Your task to perform on an android device: turn notification dots off Image 0: 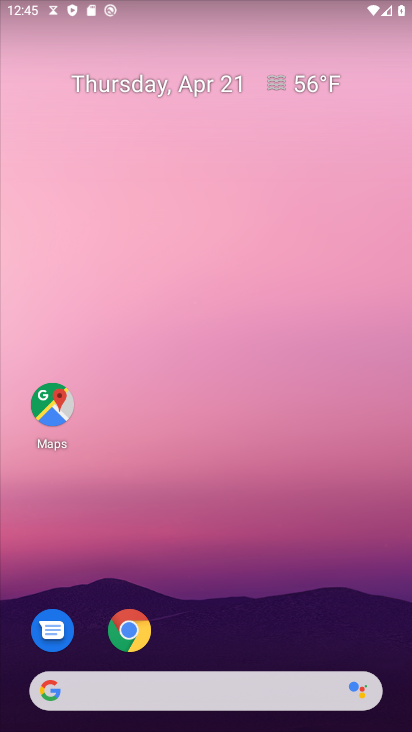
Step 0: drag from (259, 680) to (211, 27)
Your task to perform on an android device: turn notification dots off Image 1: 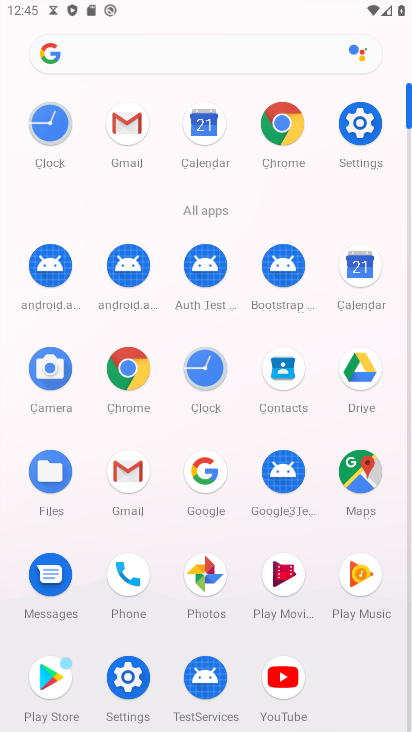
Step 1: click (128, 670)
Your task to perform on an android device: turn notification dots off Image 2: 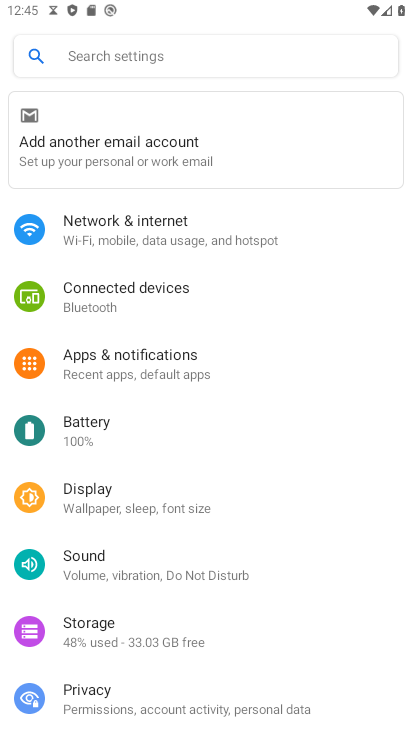
Step 2: click (139, 382)
Your task to perform on an android device: turn notification dots off Image 3: 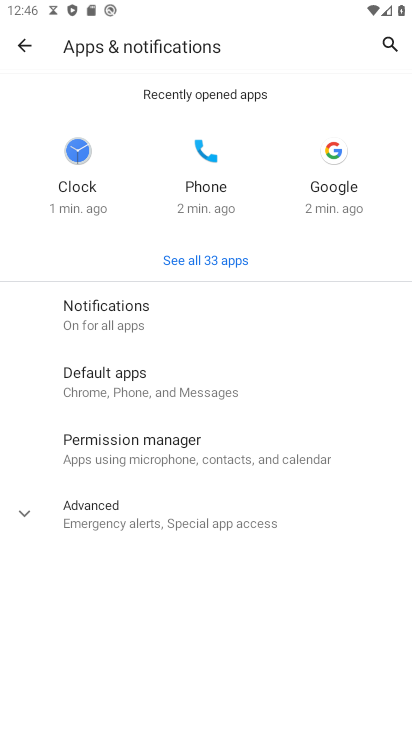
Step 3: click (130, 322)
Your task to perform on an android device: turn notification dots off Image 4: 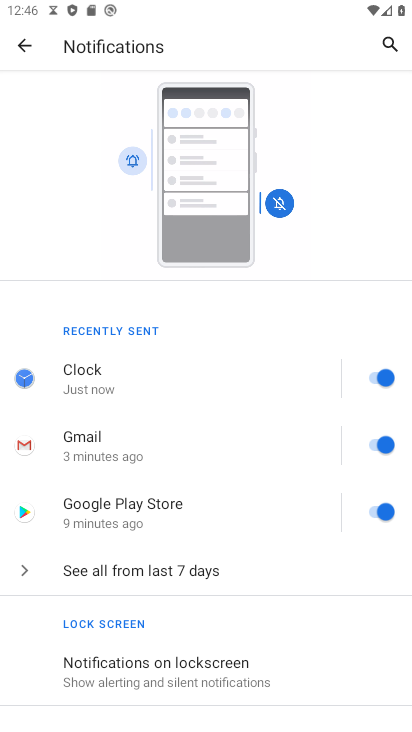
Step 4: drag from (164, 626) to (173, 62)
Your task to perform on an android device: turn notification dots off Image 5: 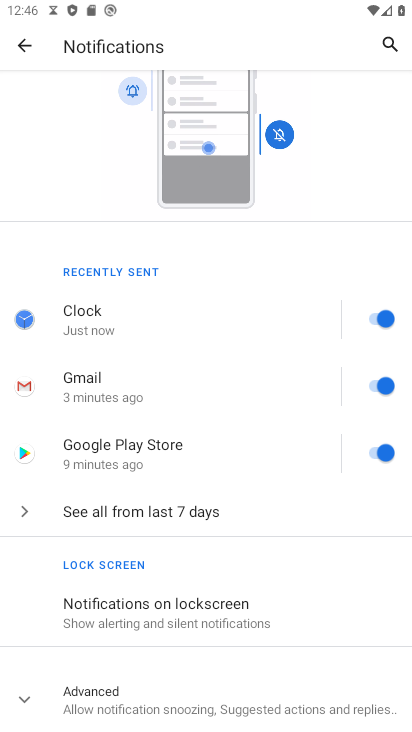
Step 5: click (122, 683)
Your task to perform on an android device: turn notification dots off Image 6: 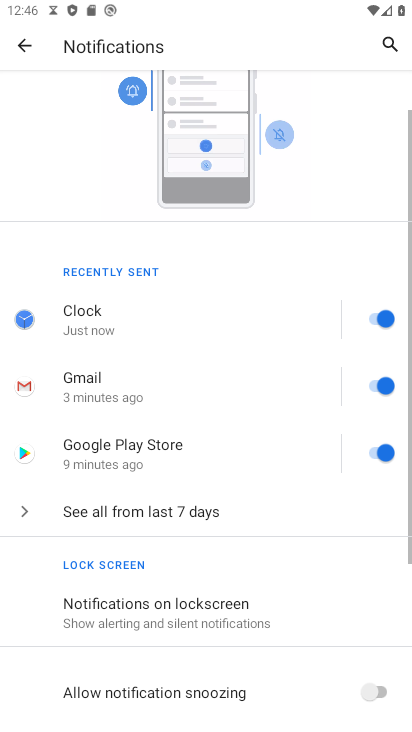
Step 6: drag from (136, 627) to (103, 280)
Your task to perform on an android device: turn notification dots off Image 7: 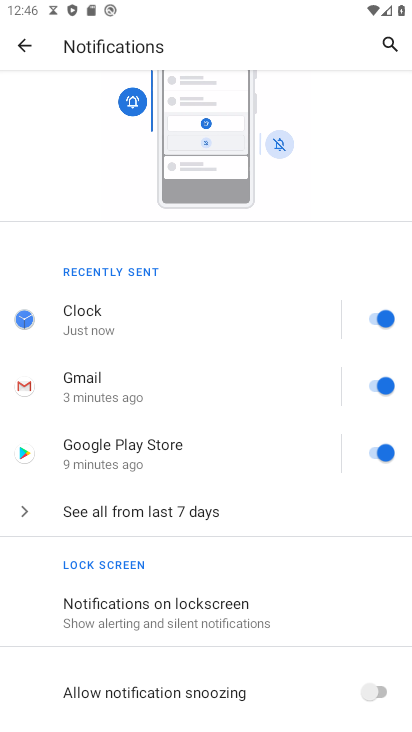
Step 7: drag from (206, 637) to (218, 70)
Your task to perform on an android device: turn notification dots off Image 8: 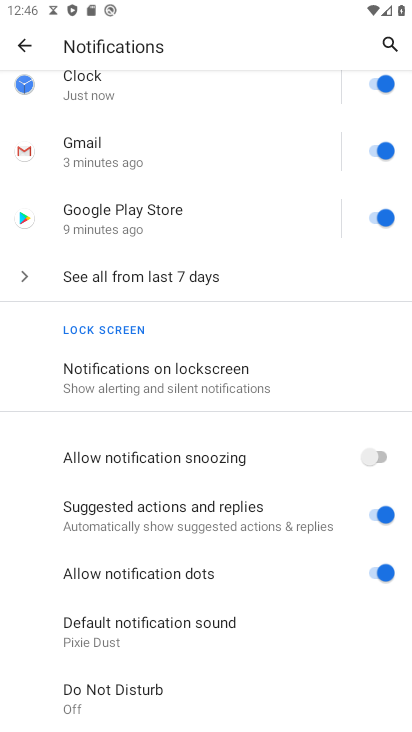
Step 8: click (379, 577)
Your task to perform on an android device: turn notification dots off Image 9: 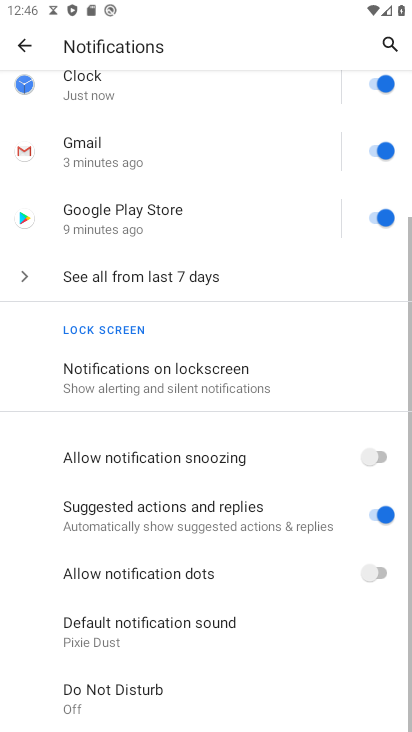
Step 9: task complete